Your task to perform on an android device: turn off smart reply in the gmail app Image 0: 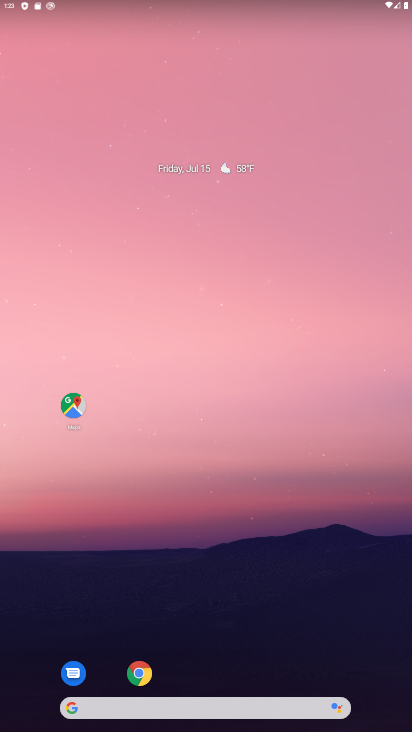
Step 0: drag from (201, 651) to (242, 102)
Your task to perform on an android device: turn off smart reply in the gmail app Image 1: 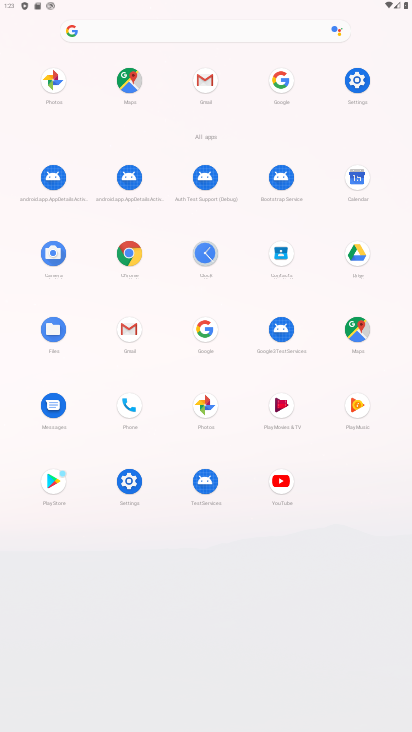
Step 1: click (204, 79)
Your task to perform on an android device: turn off smart reply in the gmail app Image 2: 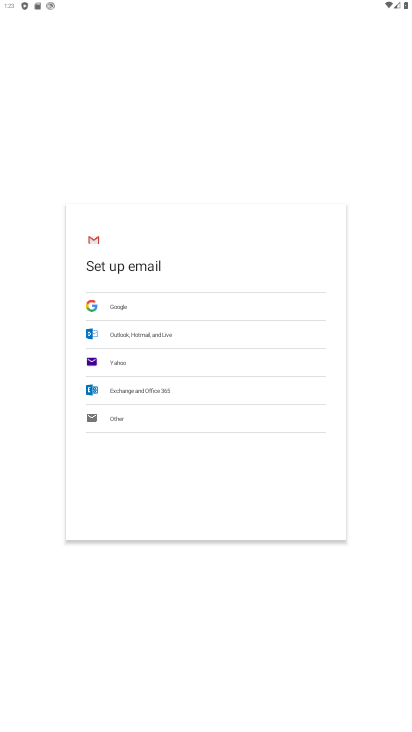
Step 2: press back button
Your task to perform on an android device: turn off smart reply in the gmail app Image 3: 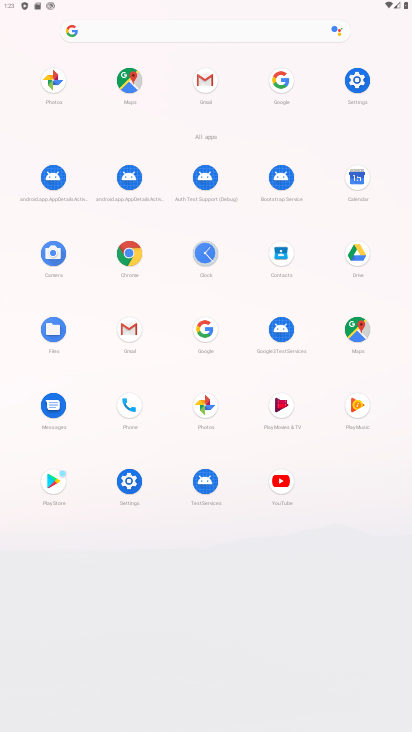
Step 3: click (199, 76)
Your task to perform on an android device: turn off smart reply in the gmail app Image 4: 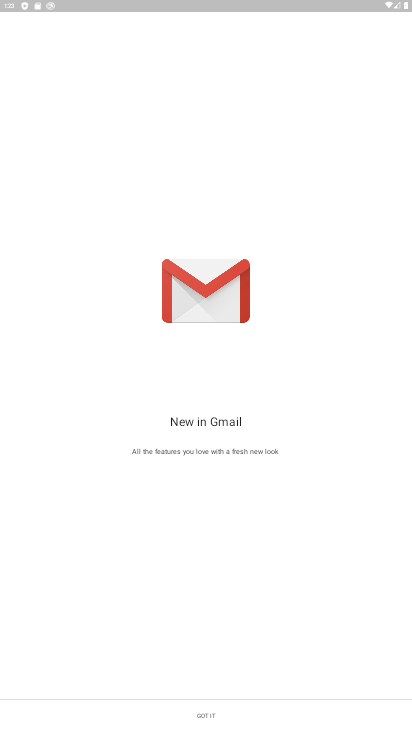
Step 4: click (217, 710)
Your task to perform on an android device: turn off smart reply in the gmail app Image 5: 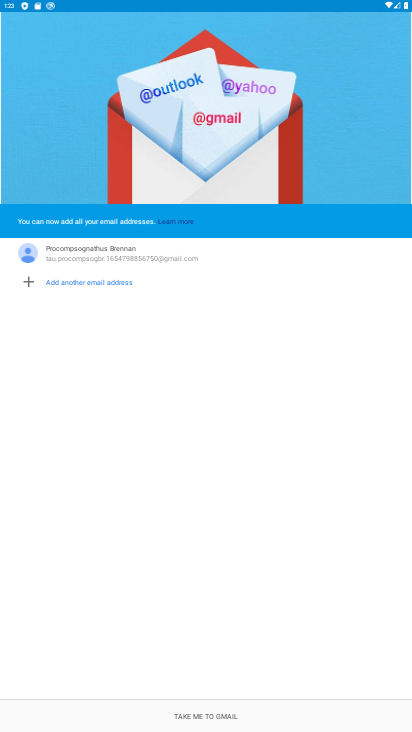
Step 5: click (224, 715)
Your task to perform on an android device: turn off smart reply in the gmail app Image 6: 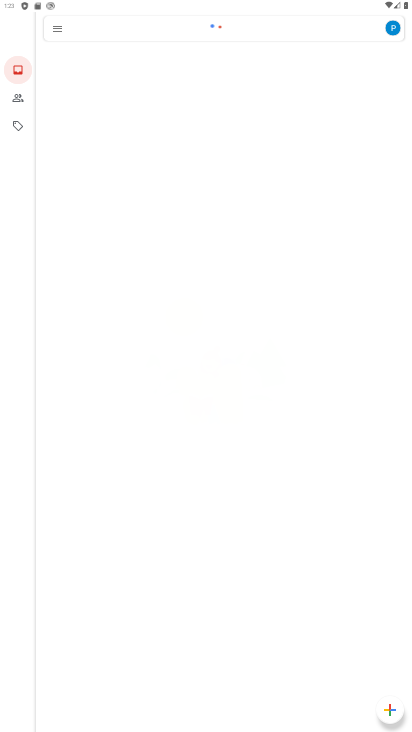
Step 6: click (59, 30)
Your task to perform on an android device: turn off smart reply in the gmail app Image 7: 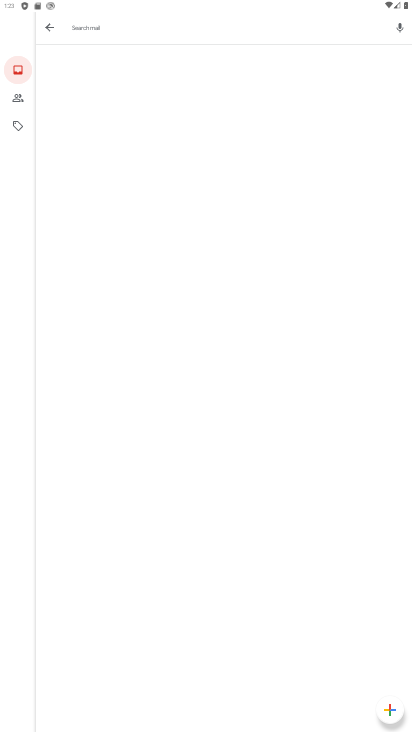
Step 7: task complete